Your task to perform on an android device: change alarm snooze length Image 0: 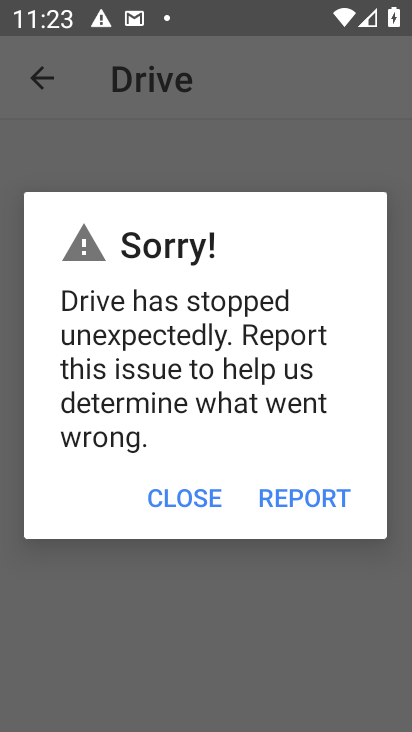
Step 0: press home button
Your task to perform on an android device: change alarm snooze length Image 1: 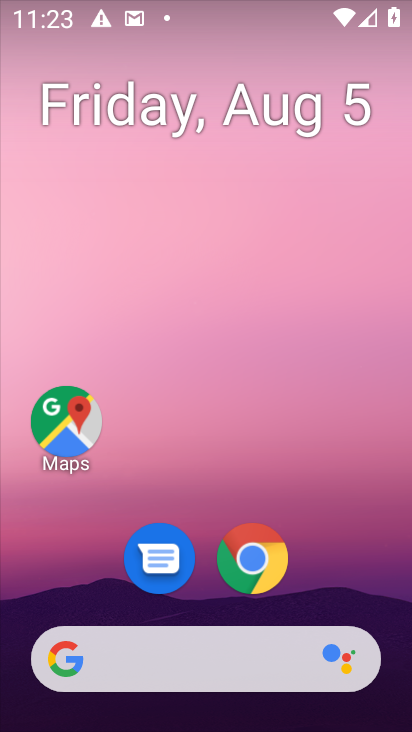
Step 1: drag from (359, 531) to (358, 279)
Your task to perform on an android device: change alarm snooze length Image 2: 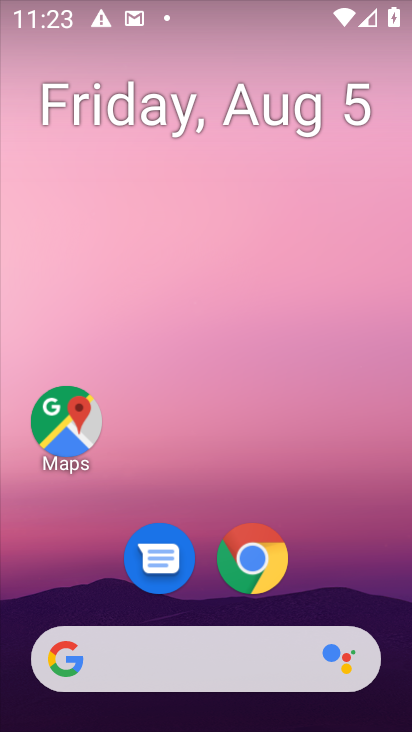
Step 2: drag from (356, 539) to (345, 200)
Your task to perform on an android device: change alarm snooze length Image 3: 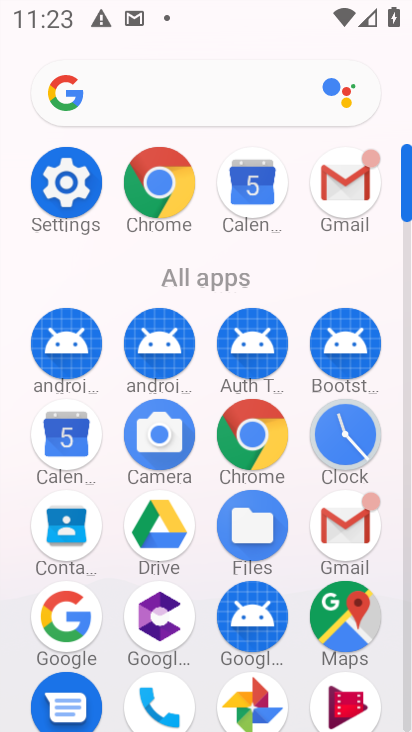
Step 3: click (358, 424)
Your task to perform on an android device: change alarm snooze length Image 4: 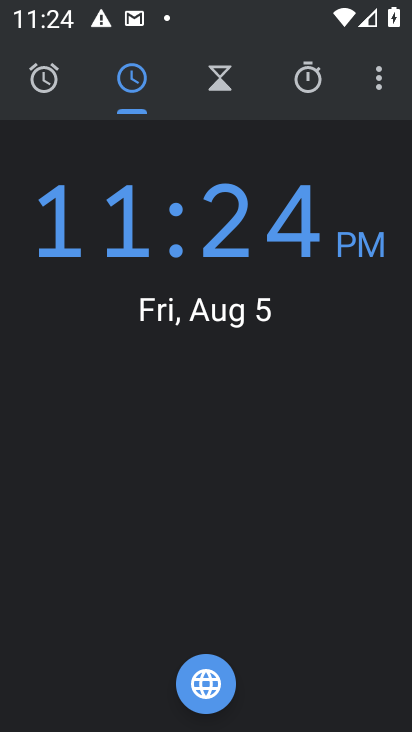
Step 4: click (381, 81)
Your task to perform on an android device: change alarm snooze length Image 5: 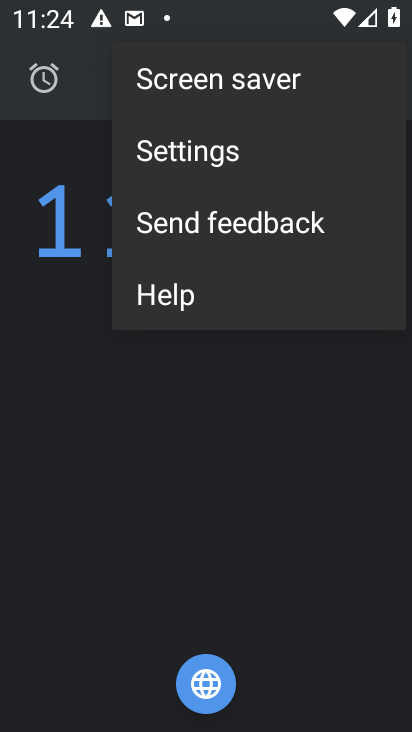
Step 5: click (253, 155)
Your task to perform on an android device: change alarm snooze length Image 6: 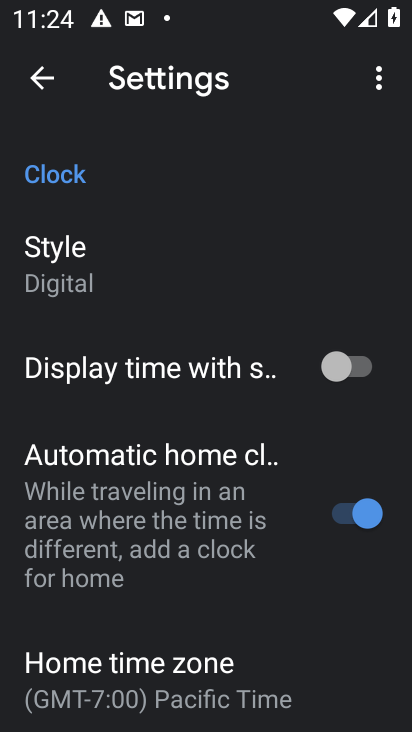
Step 6: drag from (274, 460) to (277, 337)
Your task to perform on an android device: change alarm snooze length Image 7: 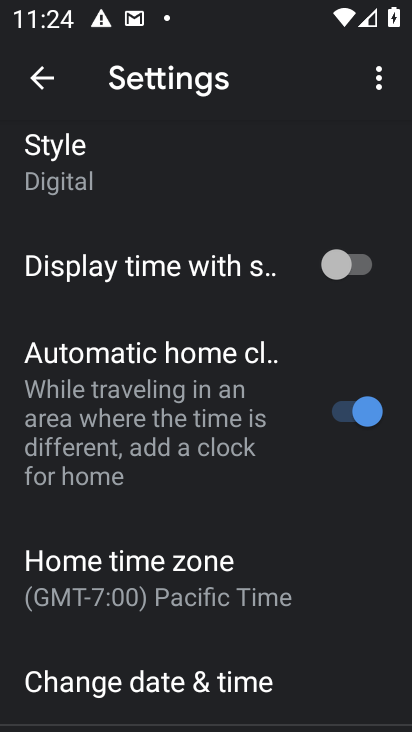
Step 7: drag from (283, 426) to (286, 336)
Your task to perform on an android device: change alarm snooze length Image 8: 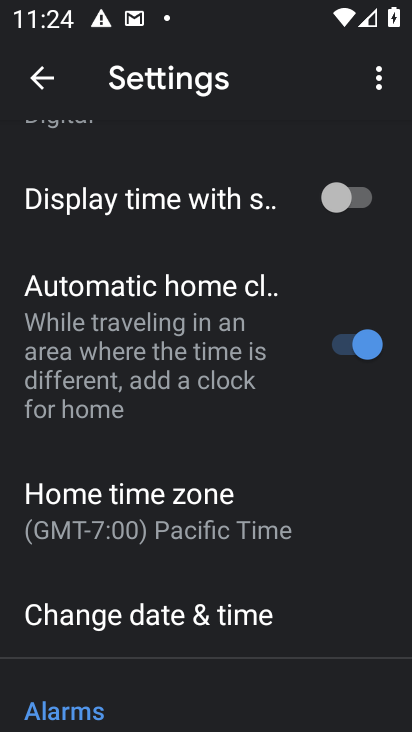
Step 8: drag from (293, 450) to (312, 306)
Your task to perform on an android device: change alarm snooze length Image 9: 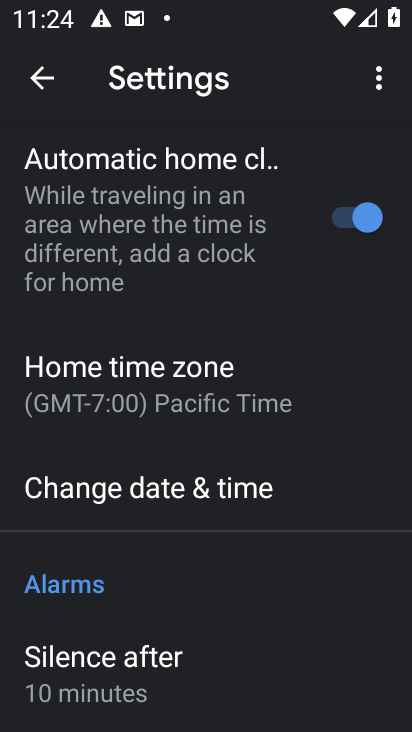
Step 9: drag from (330, 432) to (321, 306)
Your task to perform on an android device: change alarm snooze length Image 10: 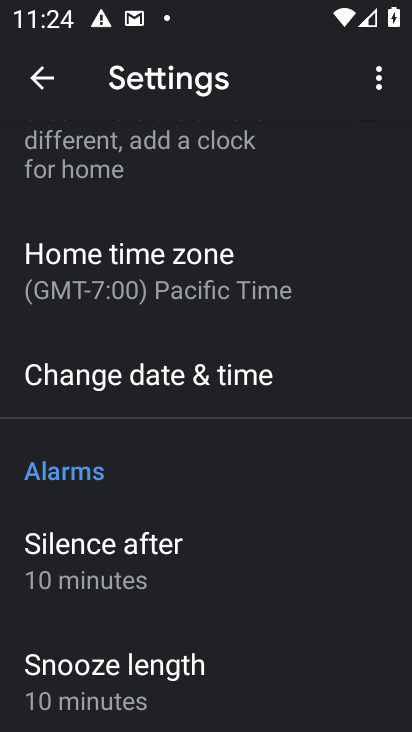
Step 10: drag from (288, 448) to (297, 345)
Your task to perform on an android device: change alarm snooze length Image 11: 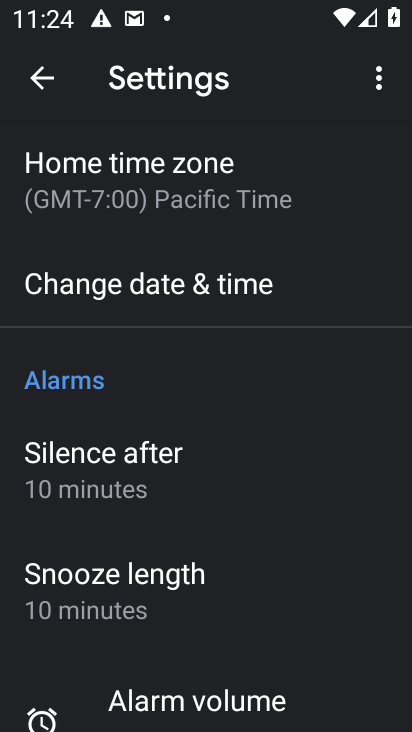
Step 11: drag from (260, 475) to (278, 362)
Your task to perform on an android device: change alarm snooze length Image 12: 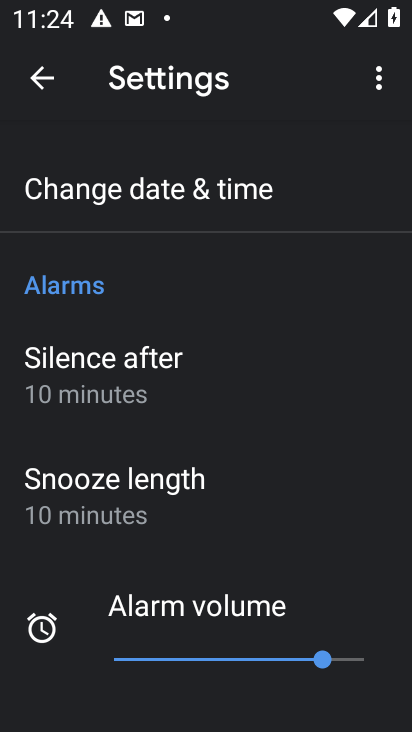
Step 12: click (276, 398)
Your task to perform on an android device: change alarm snooze length Image 13: 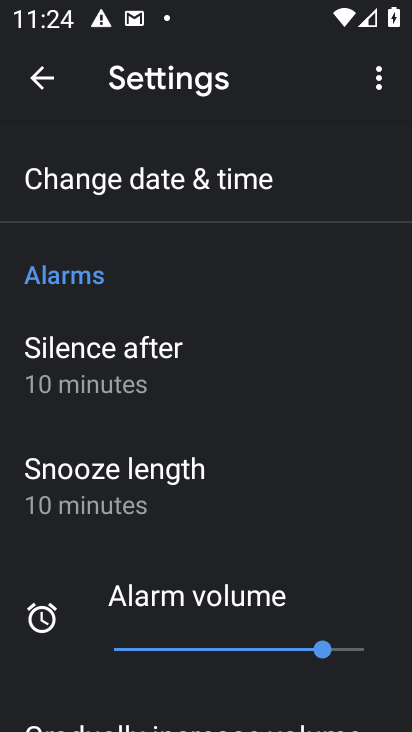
Step 13: click (240, 492)
Your task to perform on an android device: change alarm snooze length Image 14: 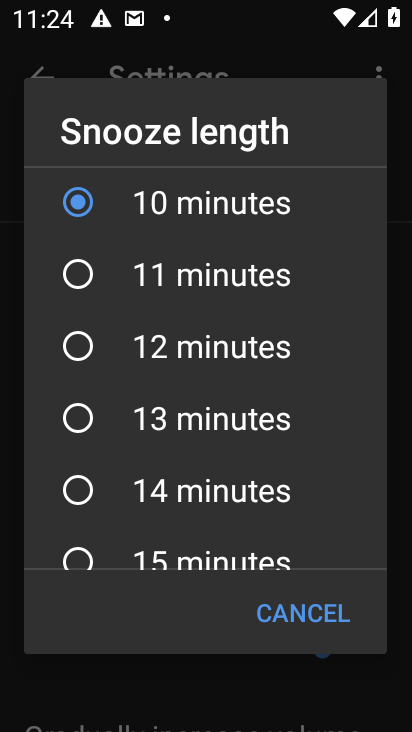
Step 14: click (184, 412)
Your task to perform on an android device: change alarm snooze length Image 15: 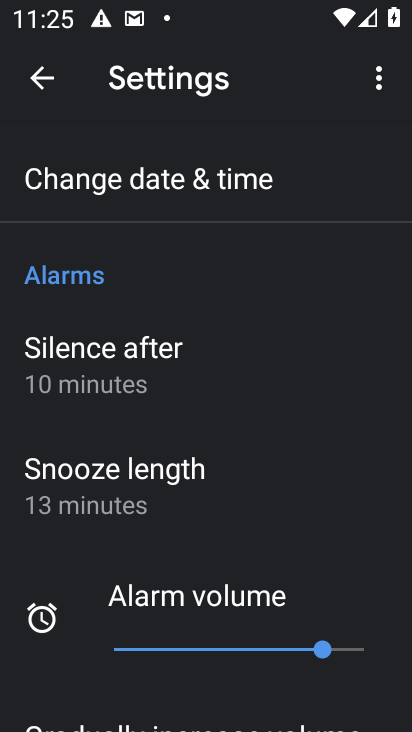
Step 15: drag from (273, 392) to (276, 252)
Your task to perform on an android device: change alarm snooze length Image 16: 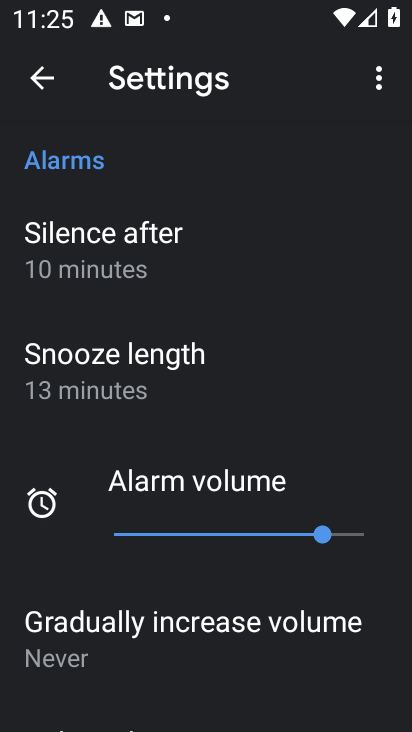
Step 16: click (201, 362)
Your task to perform on an android device: change alarm snooze length Image 17: 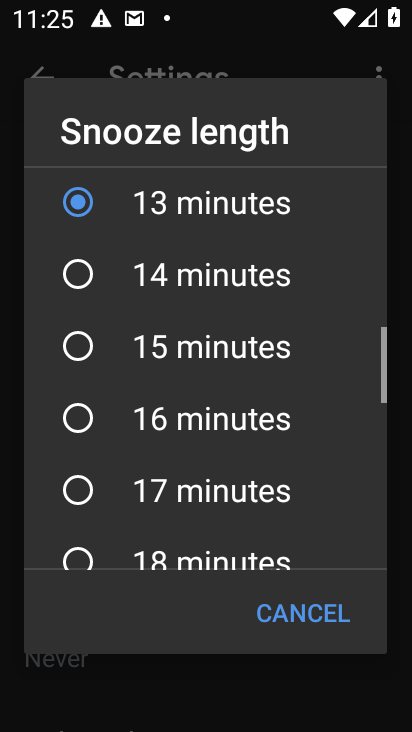
Step 17: click (201, 362)
Your task to perform on an android device: change alarm snooze length Image 18: 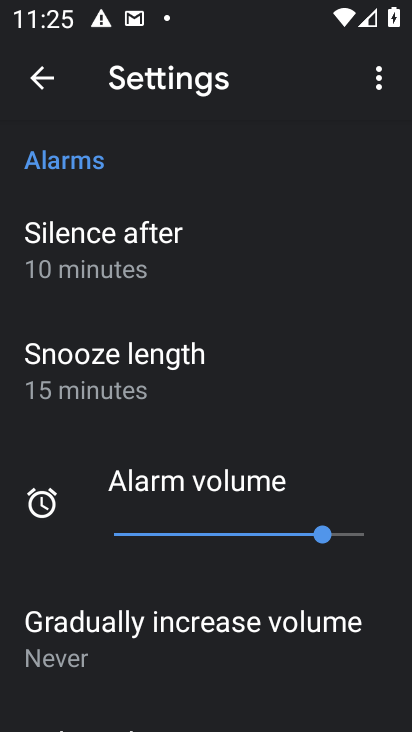
Step 18: task complete